Your task to perform on an android device: turn off sleep mode Image 0: 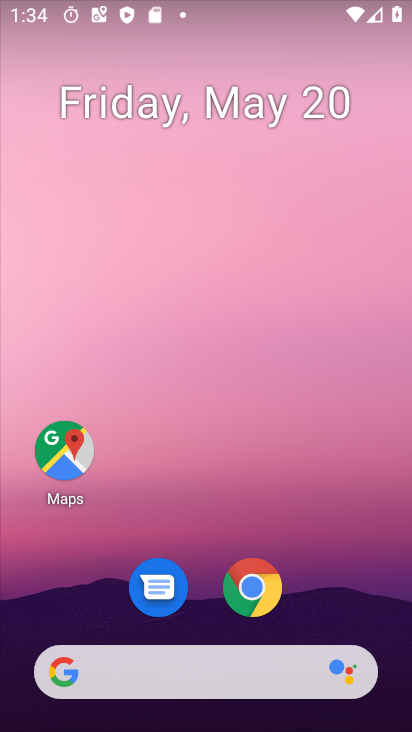
Step 0: drag from (404, 587) to (373, 143)
Your task to perform on an android device: turn off sleep mode Image 1: 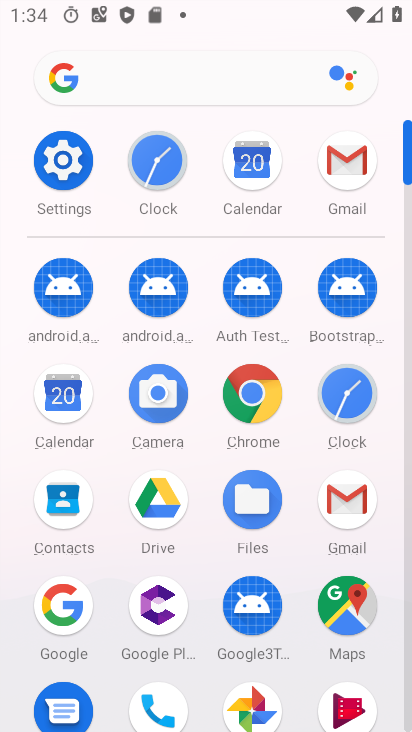
Step 1: click (46, 174)
Your task to perform on an android device: turn off sleep mode Image 2: 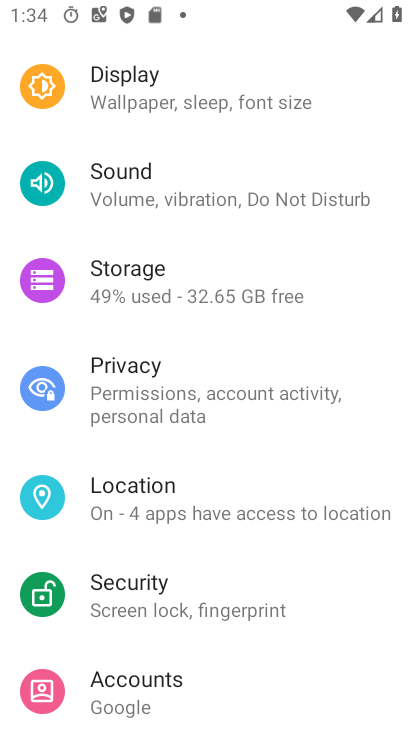
Step 2: drag from (224, 262) to (176, 682)
Your task to perform on an android device: turn off sleep mode Image 3: 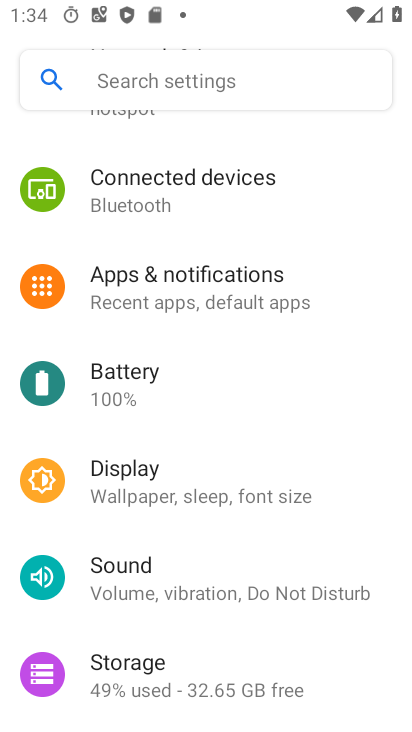
Step 3: click (188, 488)
Your task to perform on an android device: turn off sleep mode Image 4: 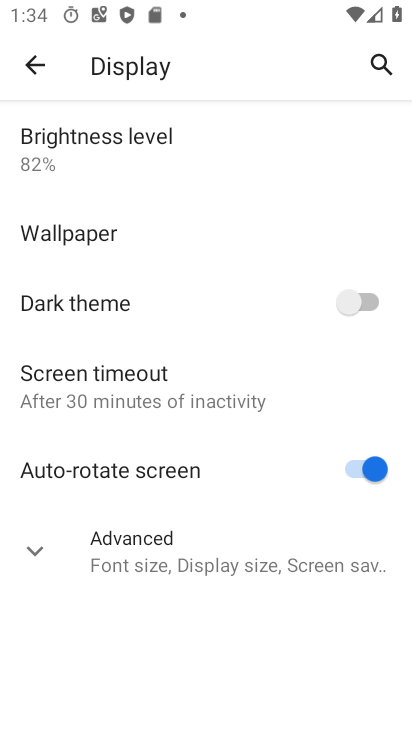
Step 4: click (119, 382)
Your task to perform on an android device: turn off sleep mode Image 5: 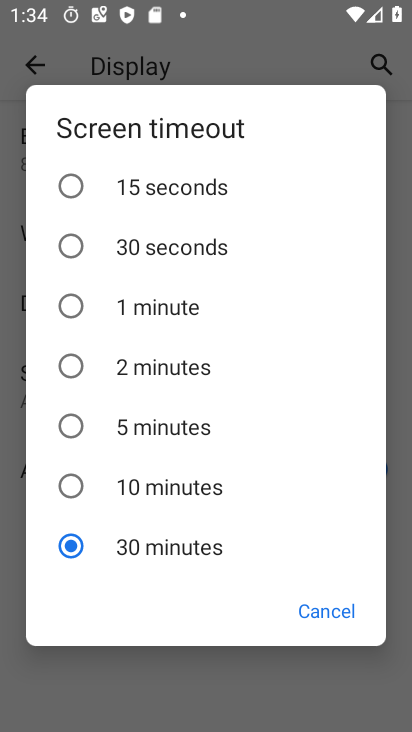
Step 5: task complete